Your task to perform on an android device: Open wifi settings Image 0: 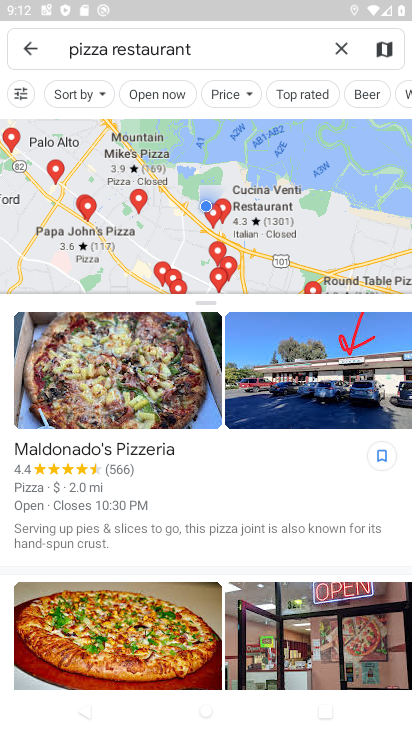
Step 0: press home button
Your task to perform on an android device: Open wifi settings Image 1: 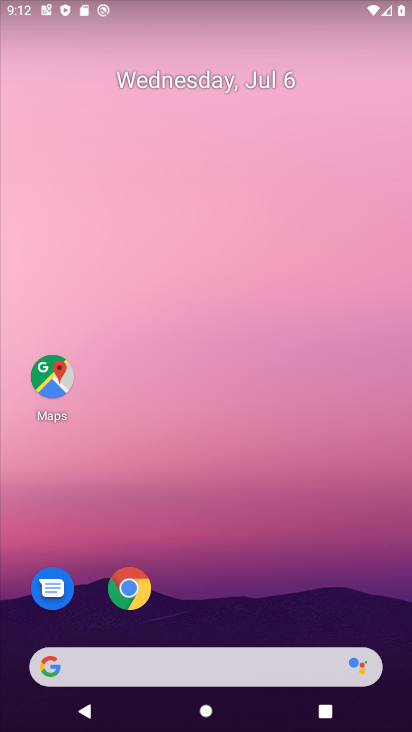
Step 1: drag from (136, 678) to (256, 117)
Your task to perform on an android device: Open wifi settings Image 2: 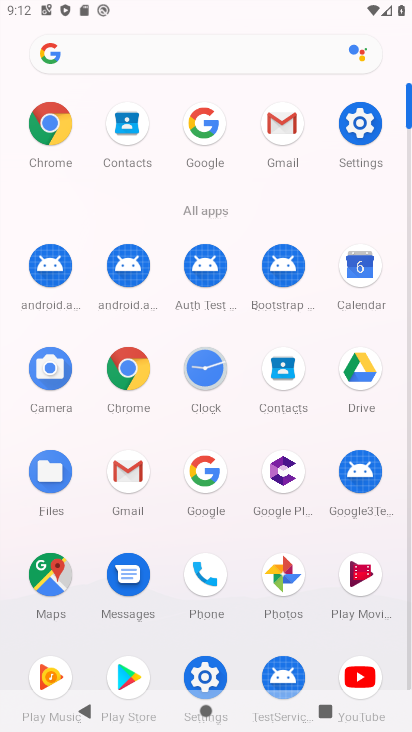
Step 2: click (358, 122)
Your task to perform on an android device: Open wifi settings Image 3: 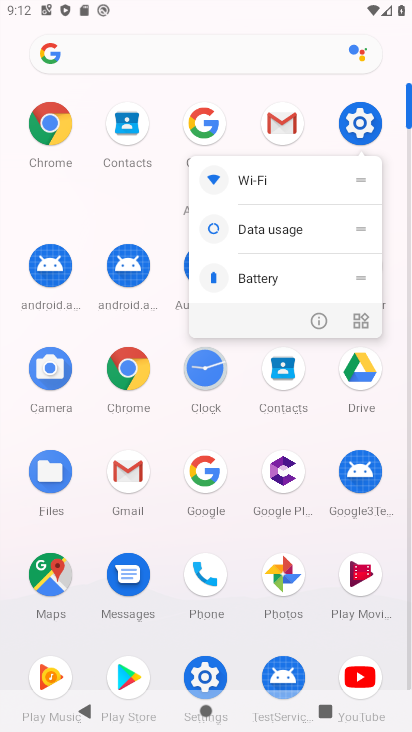
Step 3: click (360, 121)
Your task to perform on an android device: Open wifi settings Image 4: 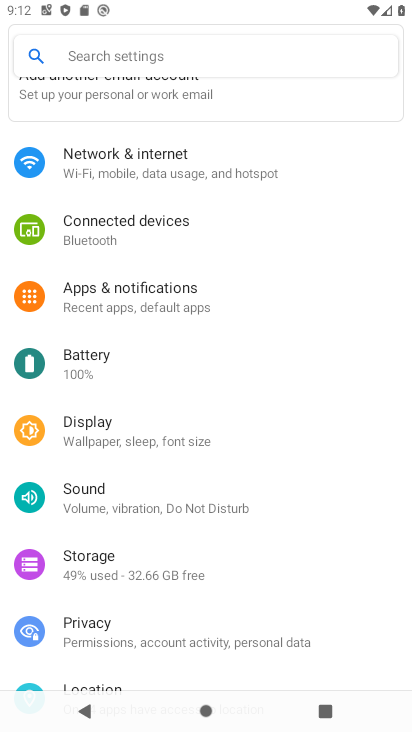
Step 4: click (186, 166)
Your task to perform on an android device: Open wifi settings Image 5: 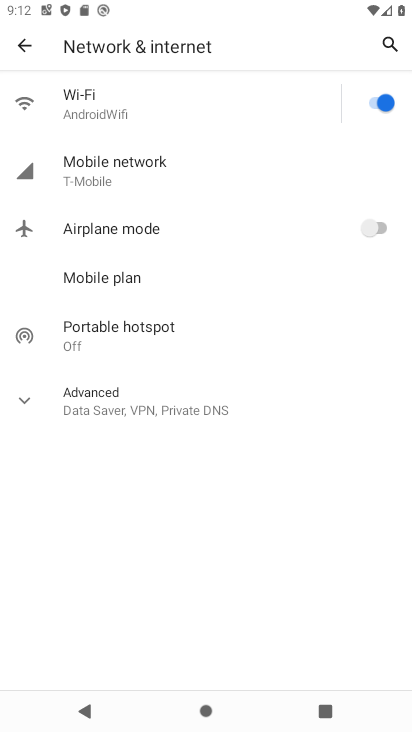
Step 5: click (118, 114)
Your task to perform on an android device: Open wifi settings Image 6: 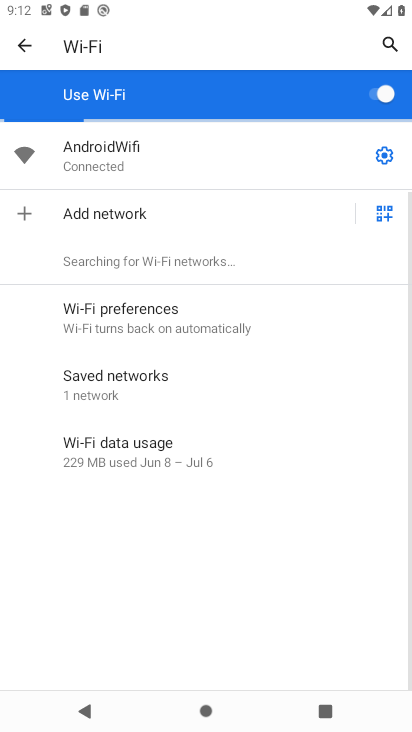
Step 6: click (382, 158)
Your task to perform on an android device: Open wifi settings Image 7: 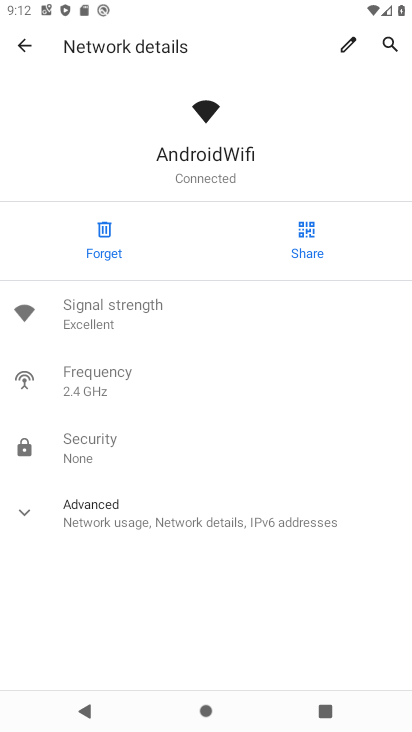
Step 7: task complete